Your task to perform on an android device: Check the weather Image 0: 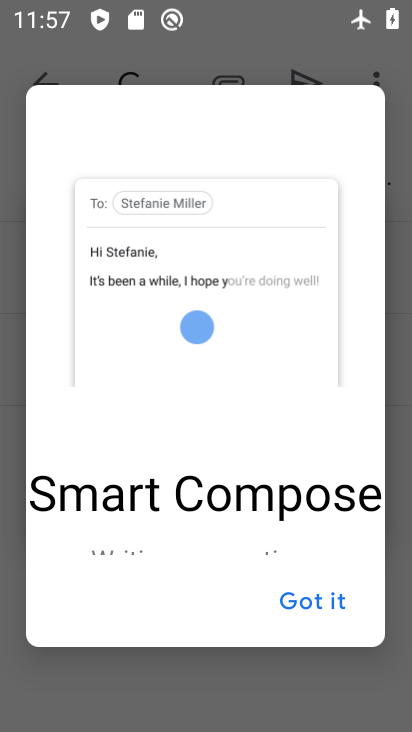
Step 0: press home button
Your task to perform on an android device: Check the weather Image 1: 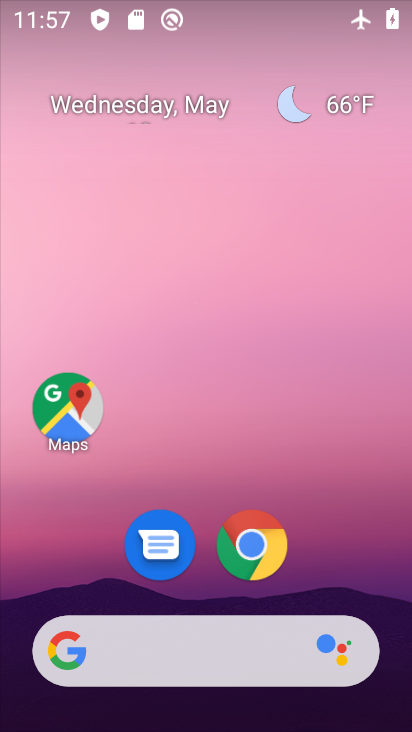
Step 1: click (203, 658)
Your task to perform on an android device: Check the weather Image 2: 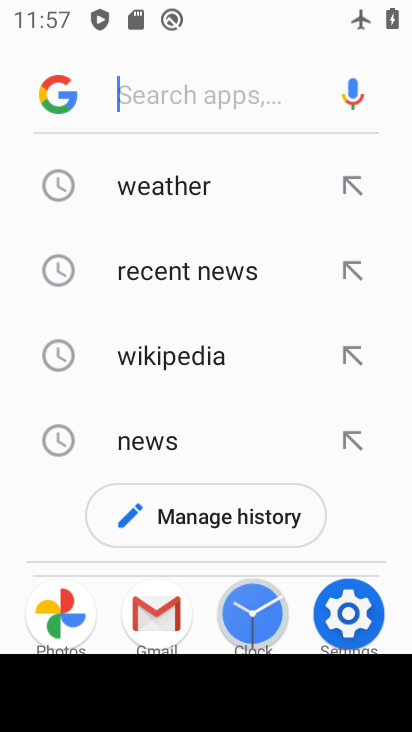
Step 2: type "Check the weather"
Your task to perform on an android device: Check the weather Image 3: 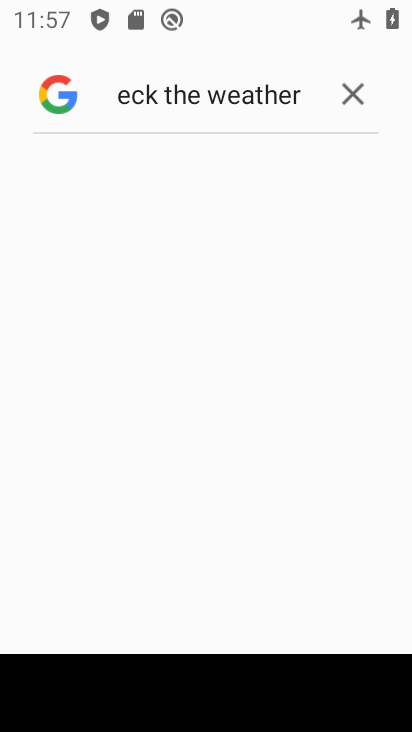
Step 3: task complete